Your task to perform on an android device: snooze an email in the gmail app Image 0: 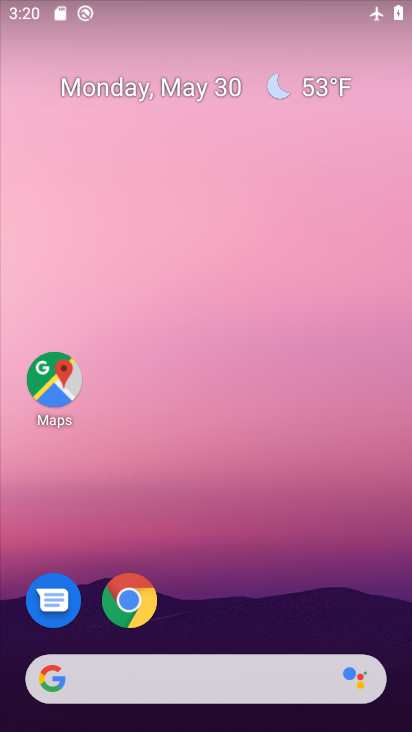
Step 0: drag from (324, 533) to (327, 44)
Your task to perform on an android device: snooze an email in the gmail app Image 1: 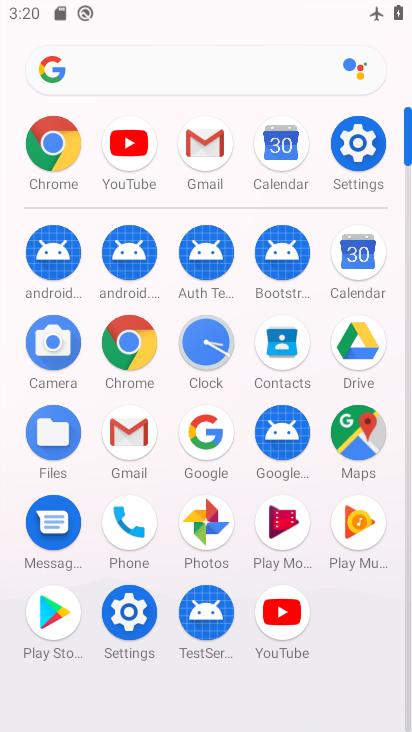
Step 1: click (187, 147)
Your task to perform on an android device: snooze an email in the gmail app Image 2: 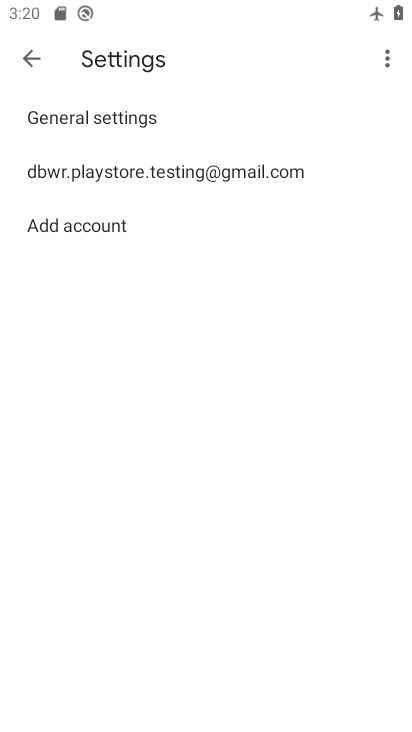
Step 2: click (37, 58)
Your task to perform on an android device: snooze an email in the gmail app Image 3: 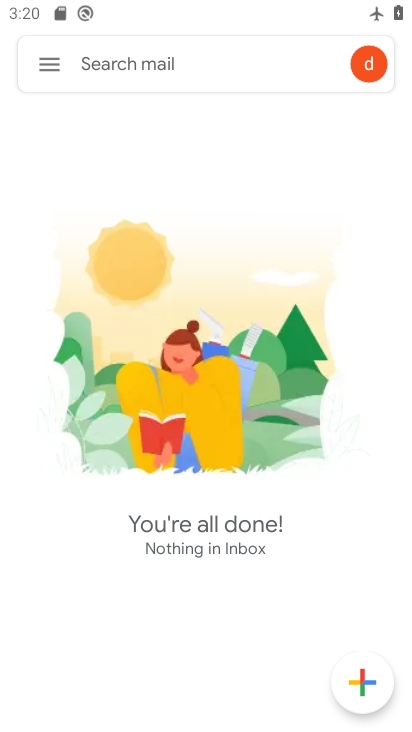
Step 3: click (37, 58)
Your task to perform on an android device: snooze an email in the gmail app Image 4: 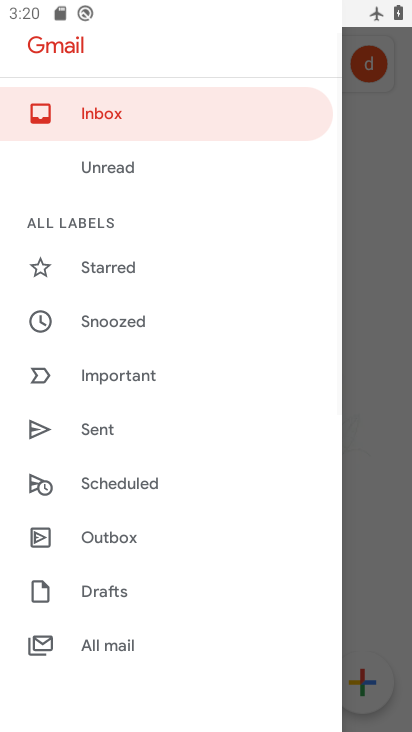
Step 4: click (118, 322)
Your task to perform on an android device: snooze an email in the gmail app Image 5: 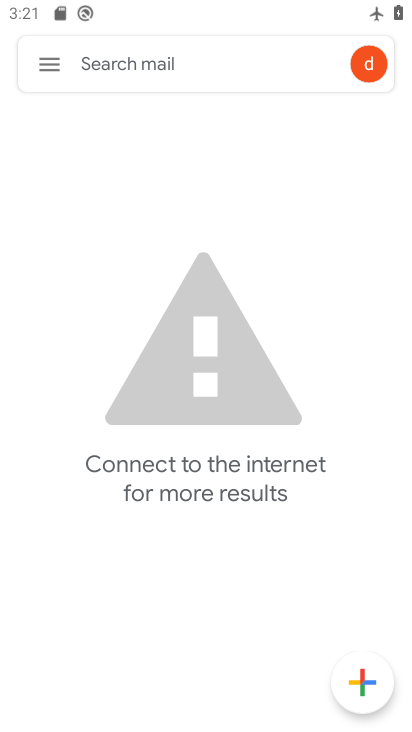
Step 5: task complete